Your task to perform on an android device: Is it going to rain today? Image 0: 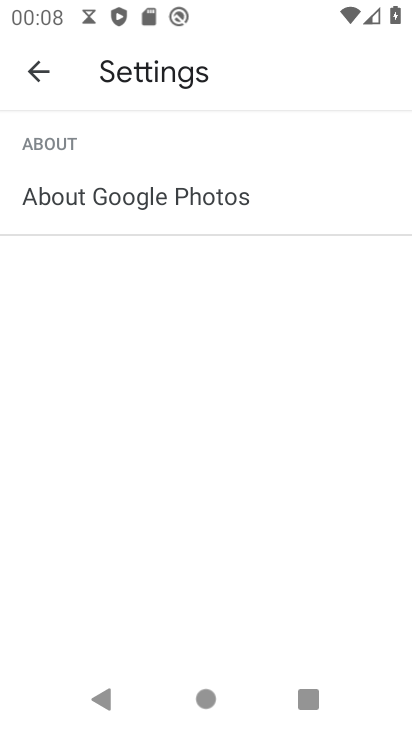
Step 0: press home button
Your task to perform on an android device: Is it going to rain today? Image 1: 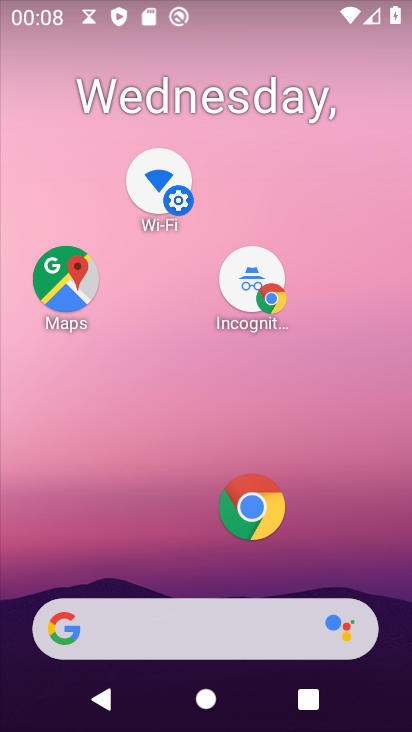
Step 1: click (173, 618)
Your task to perform on an android device: Is it going to rain today? Image 2: 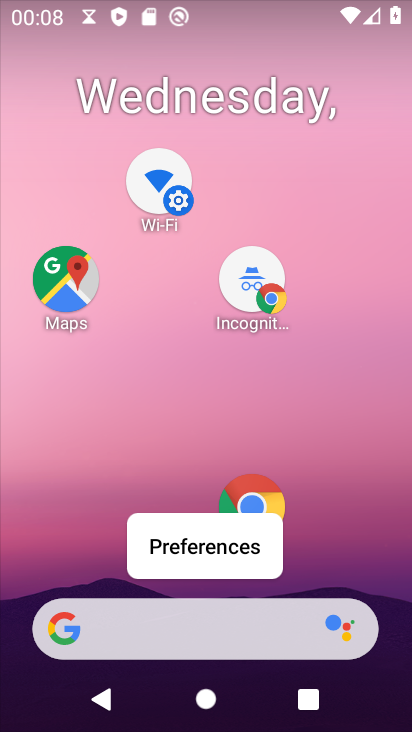
Step 2: click (141, 623)
Your task to perform on an android device: Is it going to rain today? Image 3: 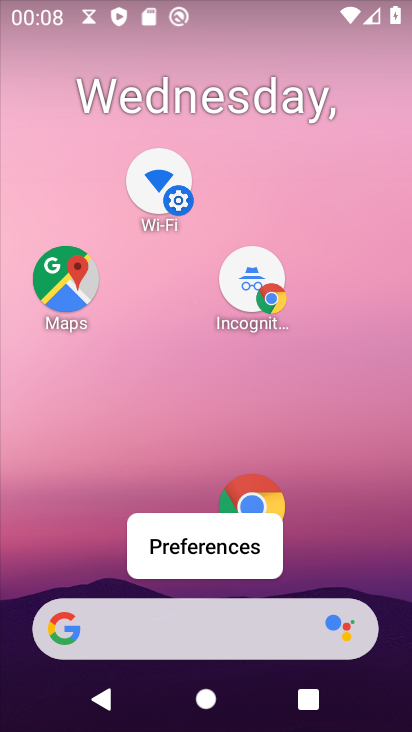
Step 3: click (131, 632)
Your task to perform on an android device: Is it going to rain today? Image 4: 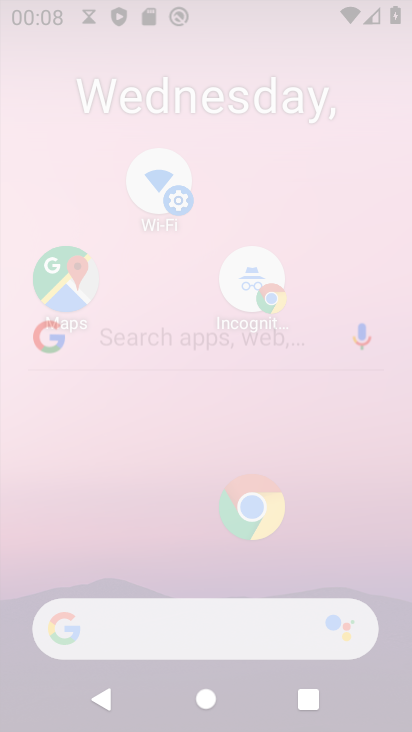
Step 4: click (56, 631)
Your task to perform on an android device: Is it going to rain today? Image 5: 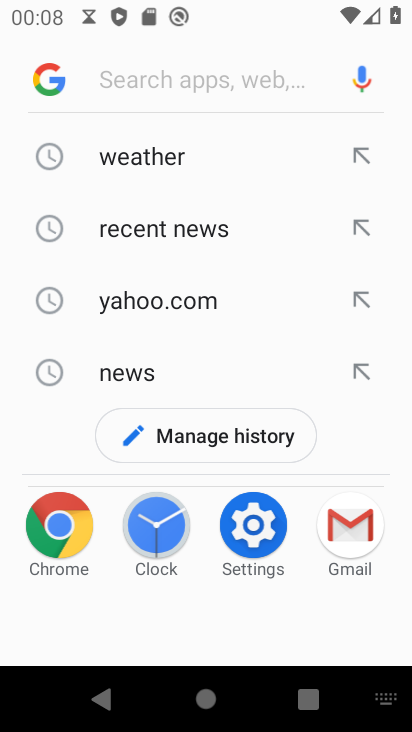
Step 5: click (149, 80)
Your task to perform on an android device: Is it going to rain today? Image 6: 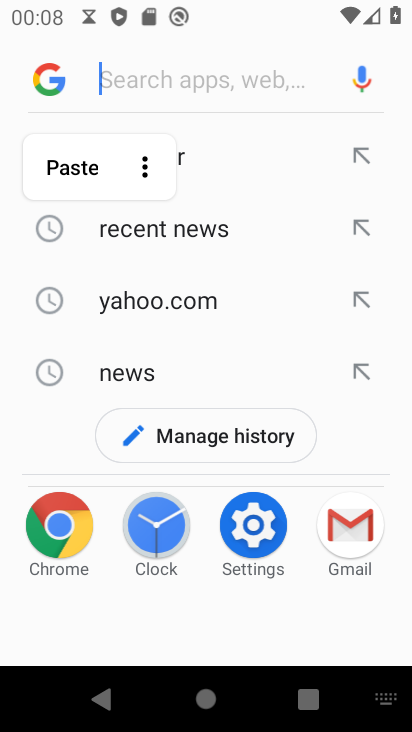
Step 6: type "Is it going to rain today?"
Your task to perform on an android device: Is it going to rain today? Image 7: 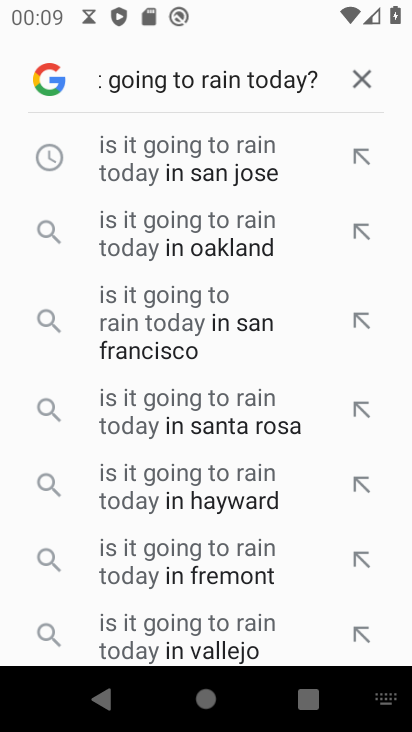
Step 7: task complete